Your task to perform on an android device: check battery use Image 0: 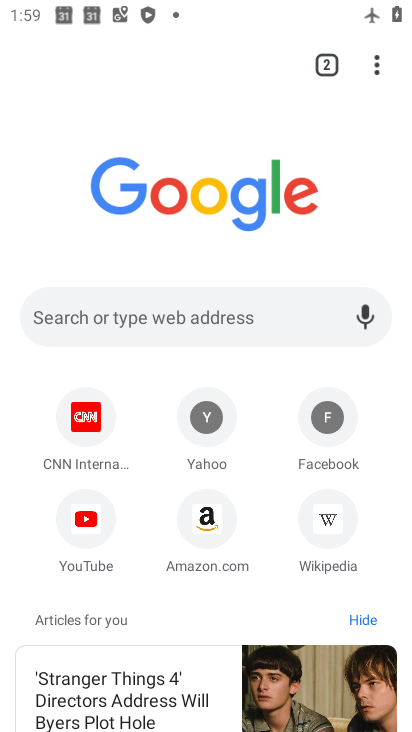
Step 0: press home button
Your task to perform on an android device: check battery use Image 1: 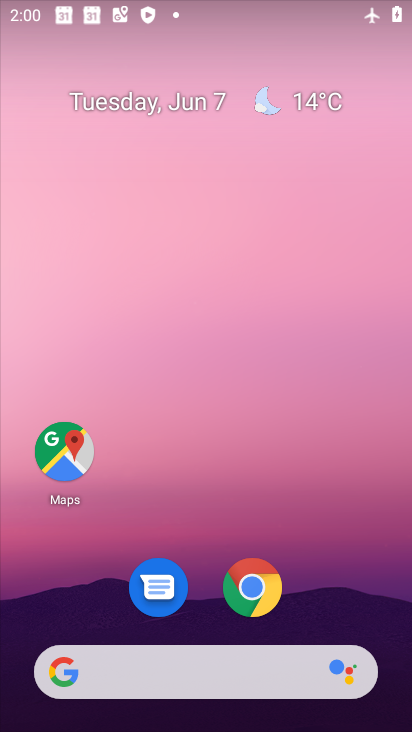
Step 1: drag from (218, 630) to (296, 129)
Your task to perform on an android device: check battery use Image 2: 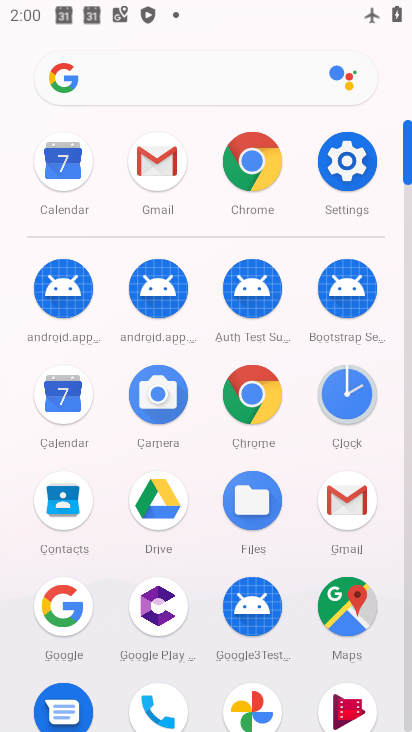
Step 2: click (362, 156)
Your task to perform on an android device: check battery use Image 3: 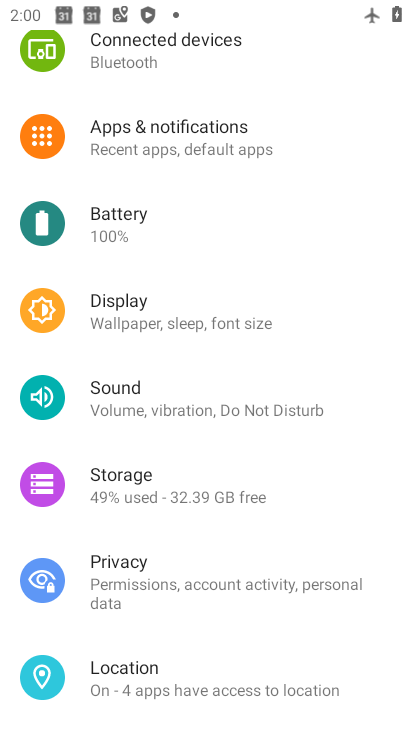
Step 3: drag from (214, 305) to (182, 692)
Your task to perform on an android device: check battery use Image 4: 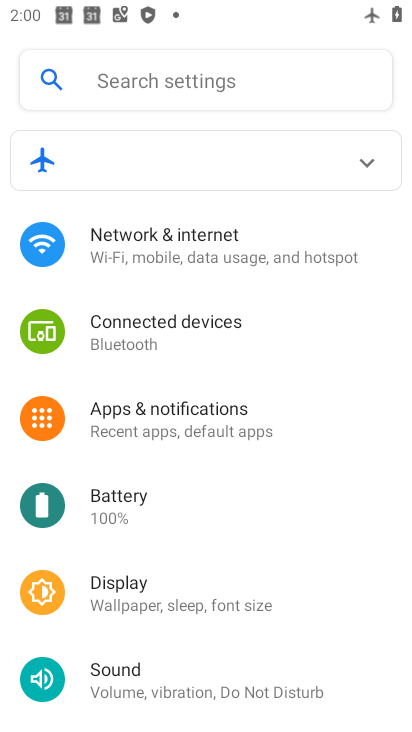
Step 4: click (177, 518)
Your task to perform on an android device: check battery use Image 5: 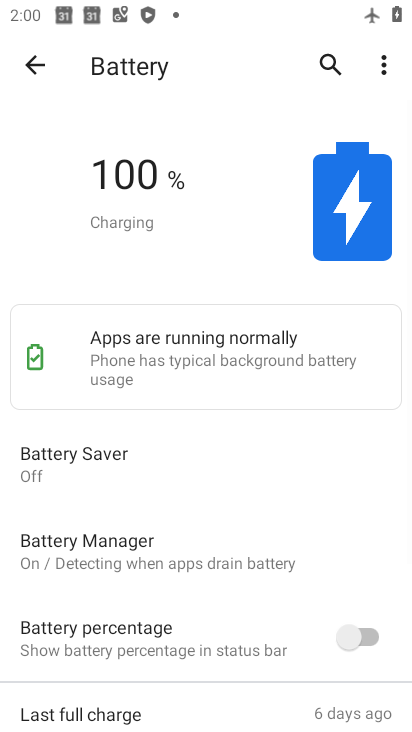
Step 5: task complete